Your task to perform on an android device: Turn off the flashlight Image 0: 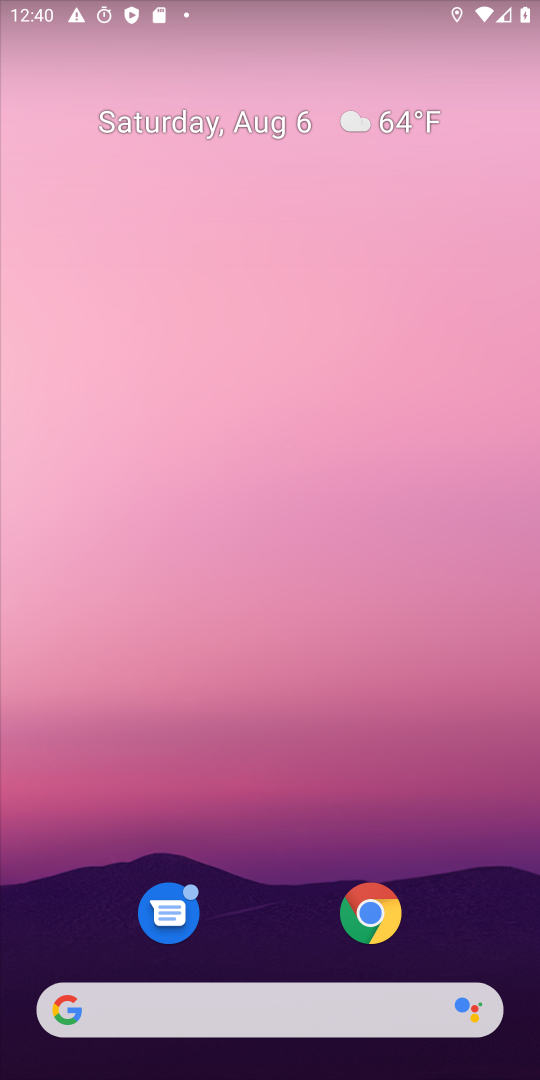
Step 0: press home button
Your task to perform on an android device: Turn off the flashlight Image 1: 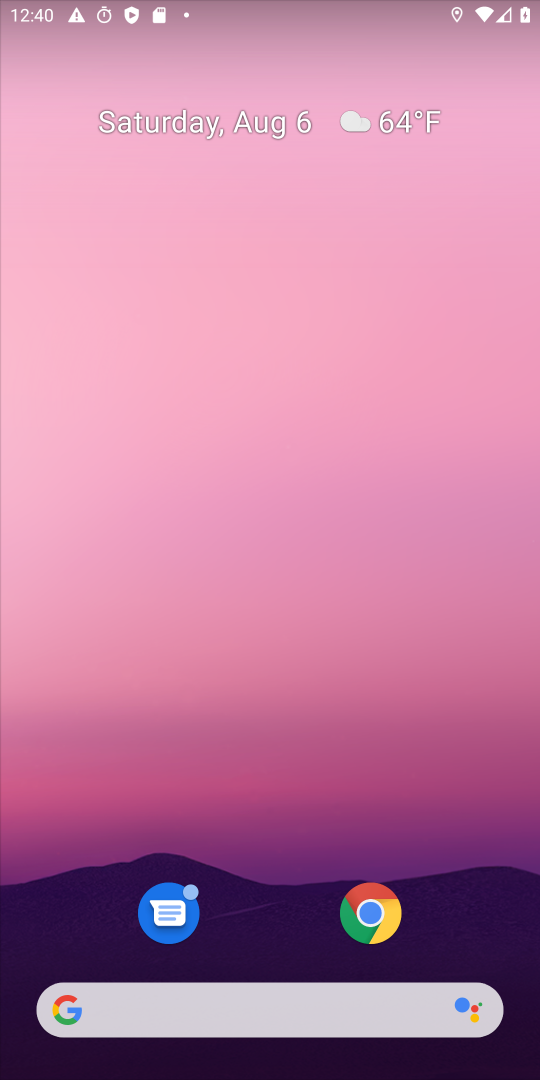
Step 1: drag from (293, 6) to (328, 544)
Your task to perform on an android device: Turn off the flashlight Image 2: 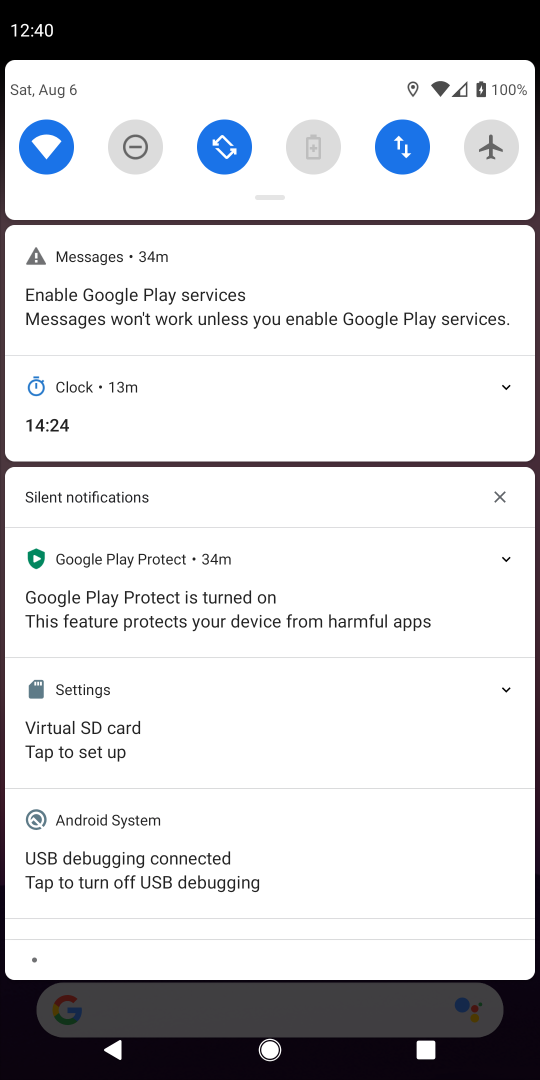
Step 2: drag from (265, 76) to (284, 480)
Your task to perform on an android device: Turn off the flashlight Image 3: 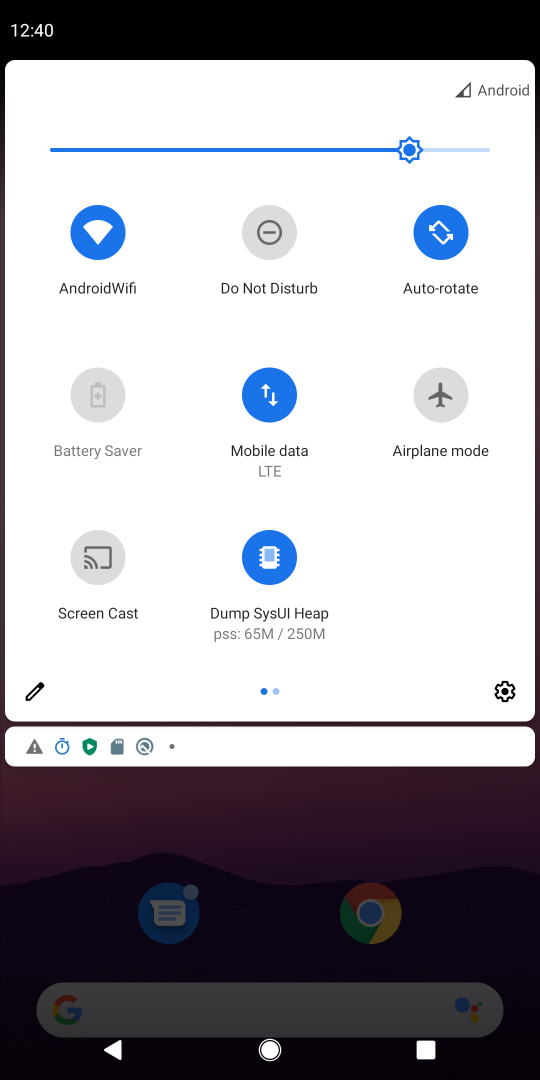
Step 3: click (45, 687)
Your task to perform on an android device: Turn off the flashlight Image 4: 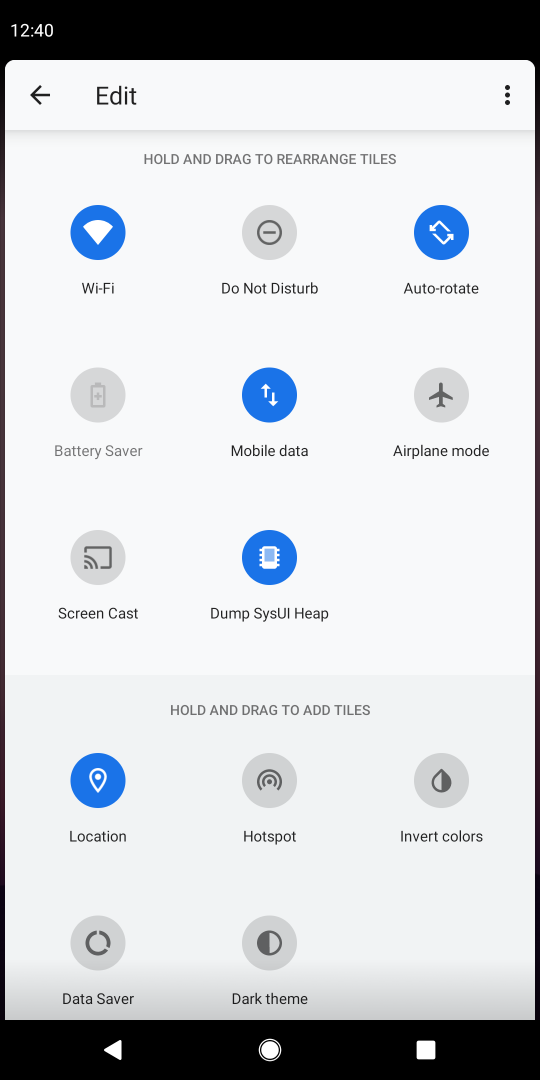
Step 4: task complete